Your task to perform on an android device: Open calendar and show me the fourth week of next month Image 0: 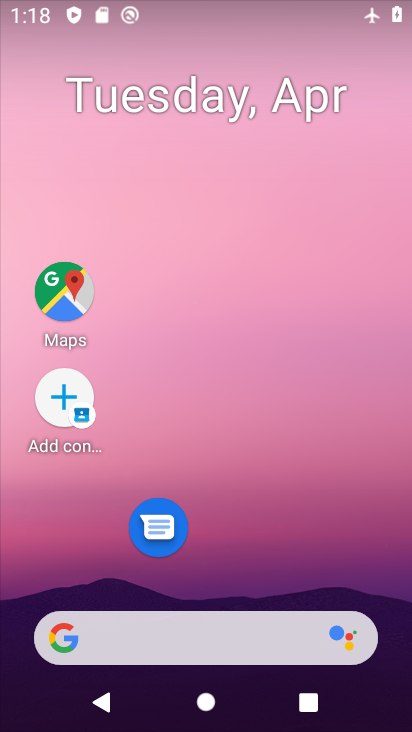
Step 0: drag from (228, 598) to (237, 79)
Your task to perform on an android device: Open calendar and show me the fourth week of next month Image 1: 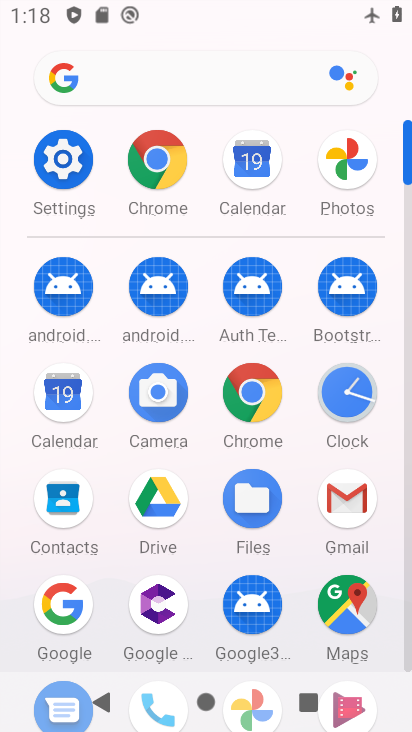
Step 1: click (70, 398)
Your task to perform on an android device: Open calendar and show me the fourth week of next month Image 2: 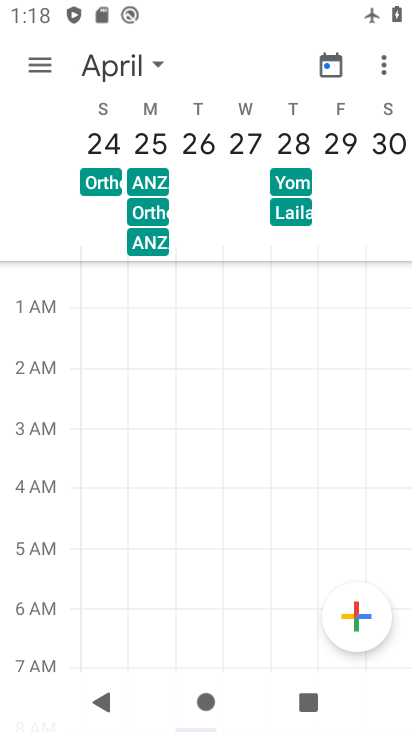
Step 2: click (329, 67)
Your task to perform on an android device: Open calendar and show me the fourth week of next month Image 3: 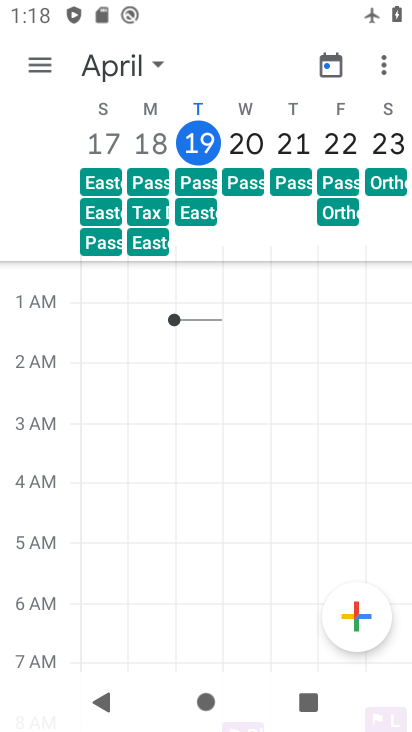
Step 3: click (160, 67)
Your task to perform on an android device: Open calendar and show me the fourth week of next month Image 4: 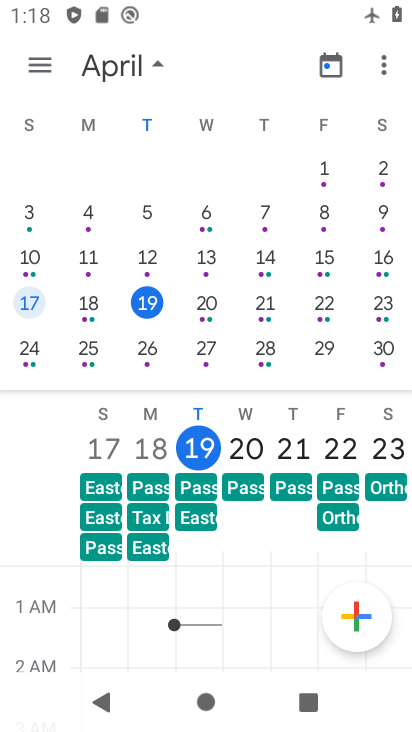
Step 4: drag from (297, 284) to (4, 237)
Your task to perform on an android device: Open calendar and show me the fourth week of next month Image 5: 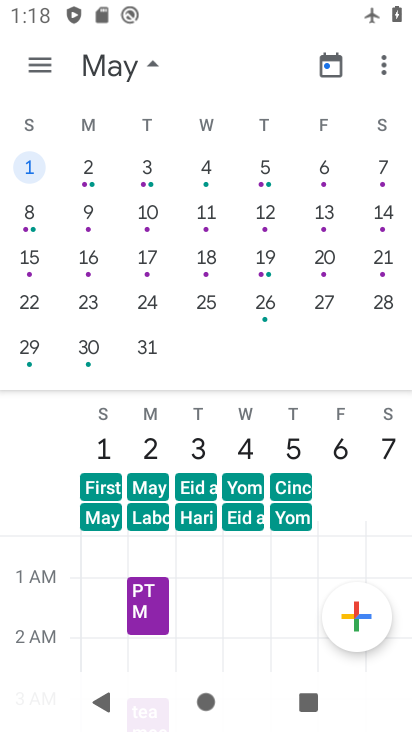
Step 5: click (89, 299)
Your task to perform on an android device: Open calendar and show me the fourth week of next month Image 6: 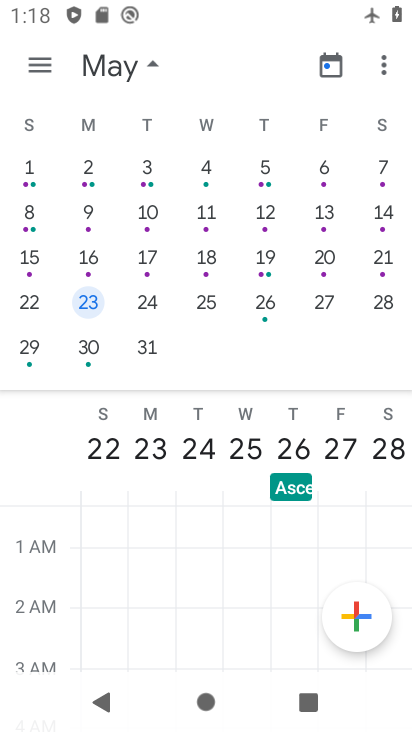
Step 6: click (40, 68)
Your task to perform on an android device: Open calendar and show me the fourth week of next month Image 7: 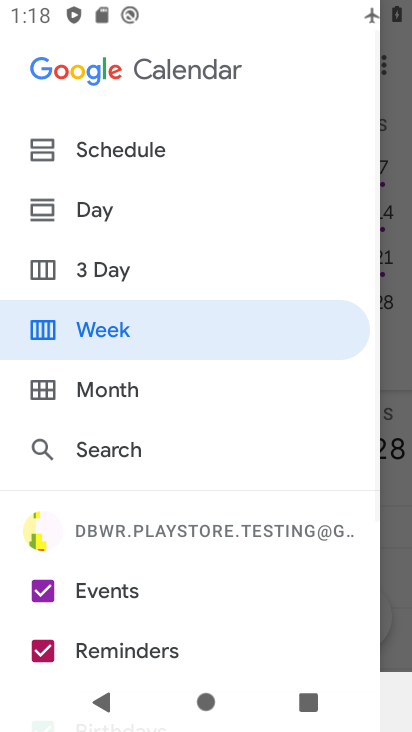
Step 7: click (118, 341)
Your task to perform on an android device: Open calendar and show me the fourth week of next month Image 8: 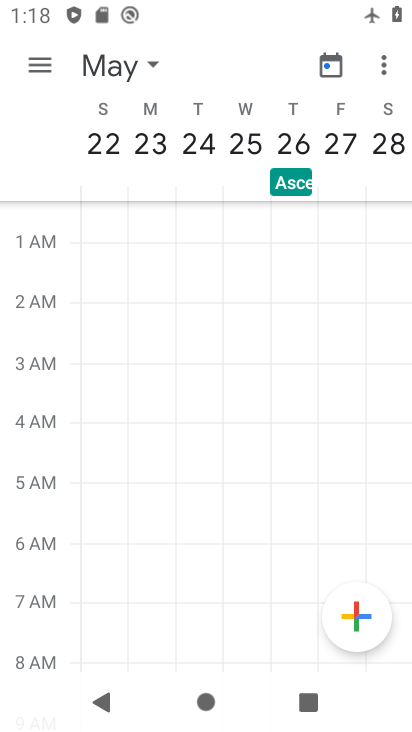
Step 8: task complete